Your task to perform on an android device: toggle data saver in the chrome app Image 0: 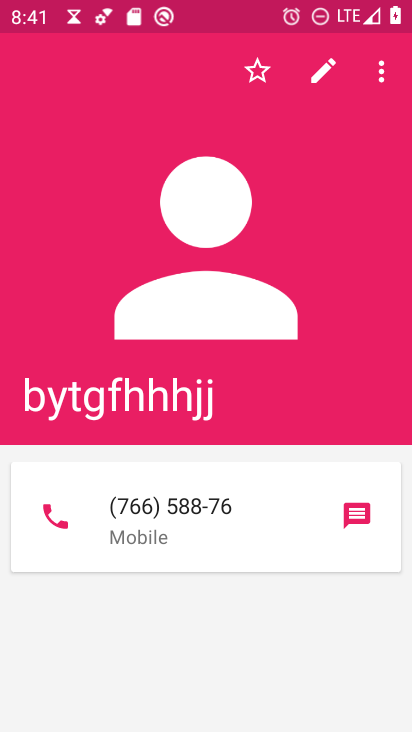
Step 0: press home button
Your task to perform on an android device: toggle data saver in the chrome app Image 1: 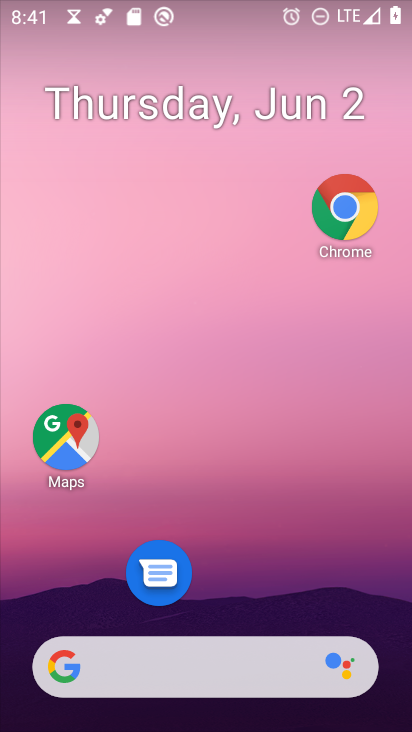
Step 1: click (343, 224)
Your task to perform on an android device: toggle data saver in the chrome app Image 2: 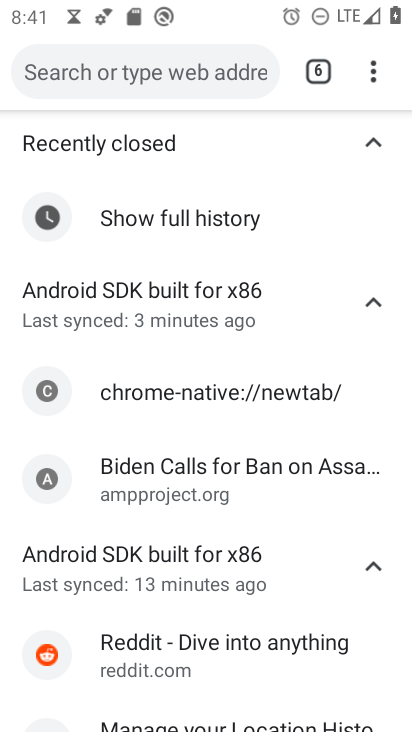
Step 2: drag from (373, 76) to (143, 598)
Your task to perform on an android device: toggle data saver in the chrome app Image 3: 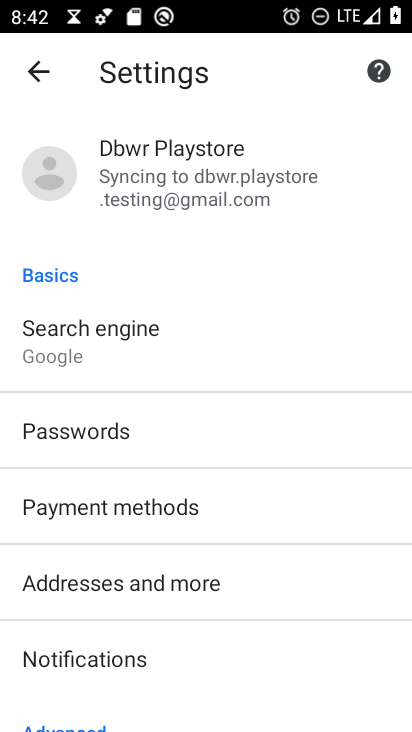
Step 3: drag from (189, 630) to (347, 300)
Your task to perform on an android device: toggle data saver in the chrome app Image 4: 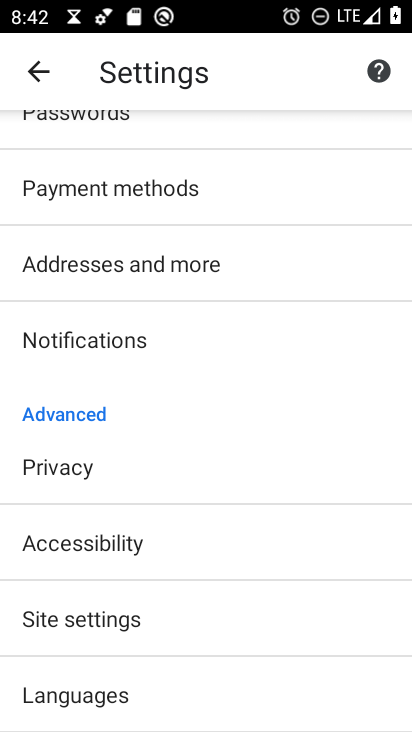
Step 4: drag from (194, 633) to (308, 330)
Your task to perform on an android device: toggle data saver in the chrome app Image 5: 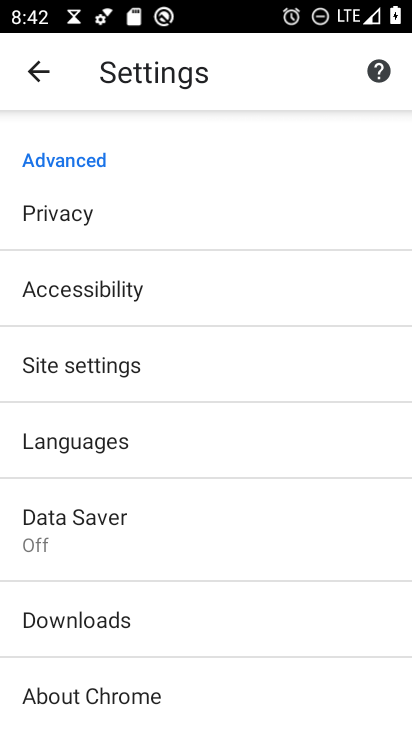
Step 5: click (116, 539)
Your task to perform on an android device: toggle data saver in the chrome app Image 6: 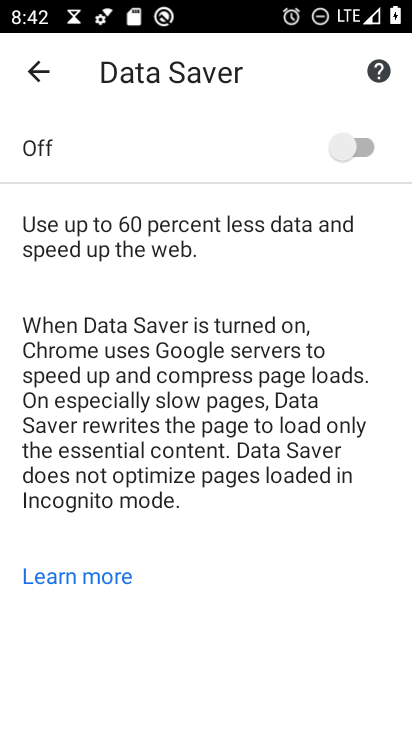
Step 6: click (365, 149)
Your task to perform on an android device: toggle data saver in the chrome app Image 7: 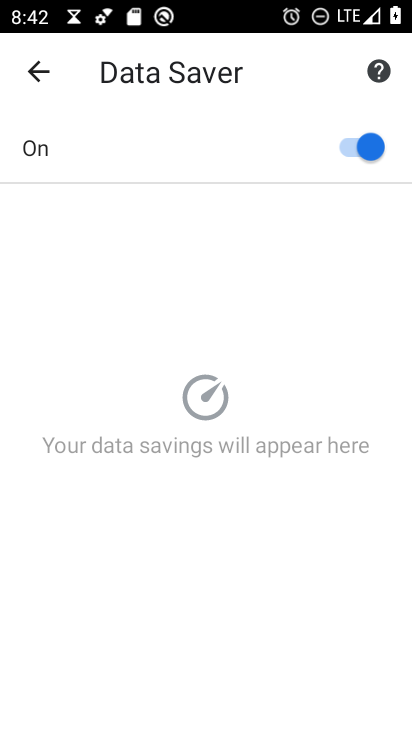
Step 7: task complete